Your task to perform on an android device: Go to Amazon Image 0: 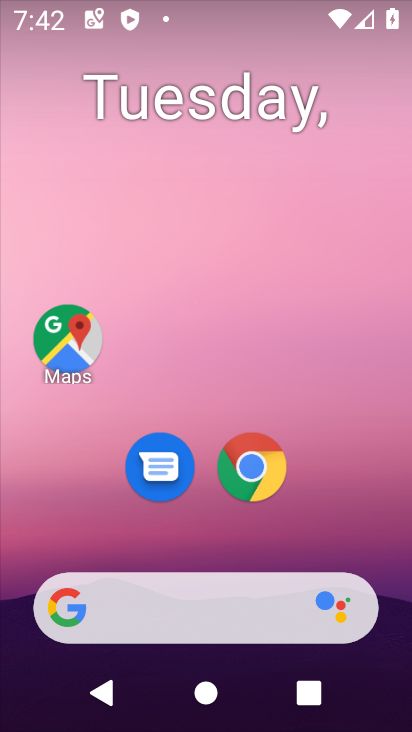
Step 0: click (274, 464)
Your task to perform on an android device: Go to Amazon Image 1: 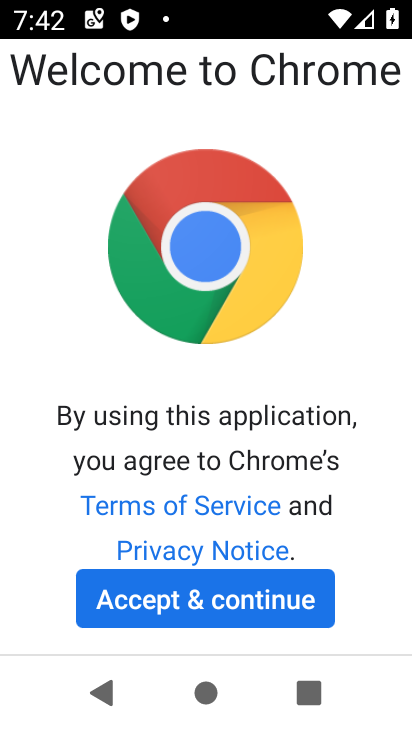
Step 1: click (277, 597)
Your task to perform on an android device: Go to Amazon Image 2: 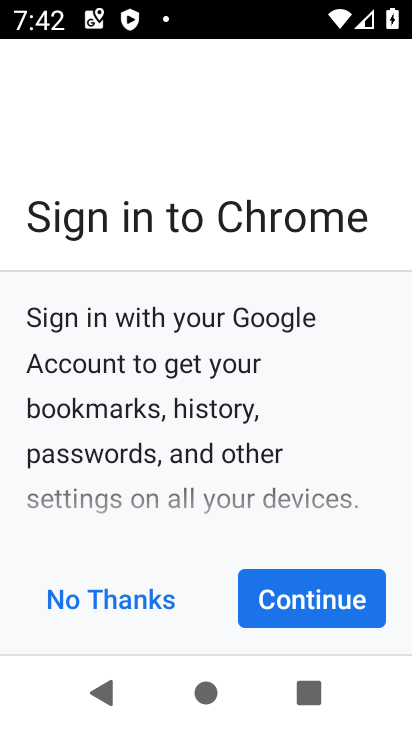
Step 2: click (299, 600)
Your task to perform on an android device: Go to Amazon Image 3: 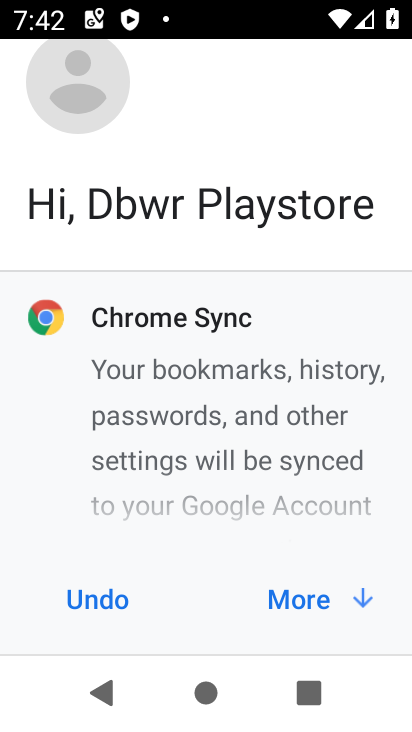
Step 3: click (299, 600)
Your task to perform on an android device: Go to Amazon Image 4: 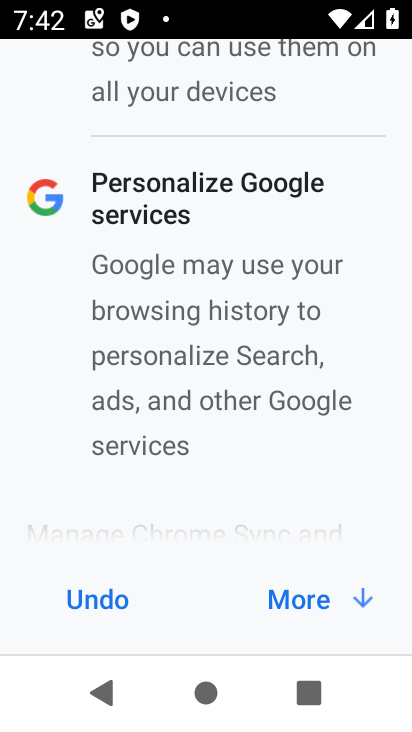
Step 4: click (299, 600)
Your task to perform on an android device: Go to Amazon Image 5: 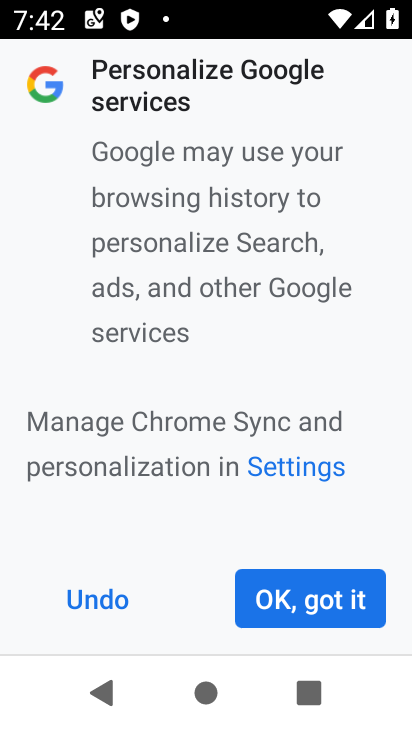
Step 5: click (299, 600)
Your task to perform on an android device: Go to Amazon Image 6: 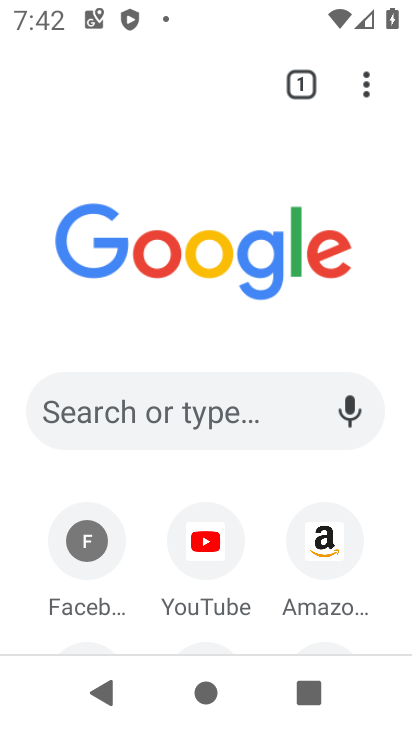
Step 6: click (335, 539)
Your task to perform on an android device: Go to Amazon Image 7: 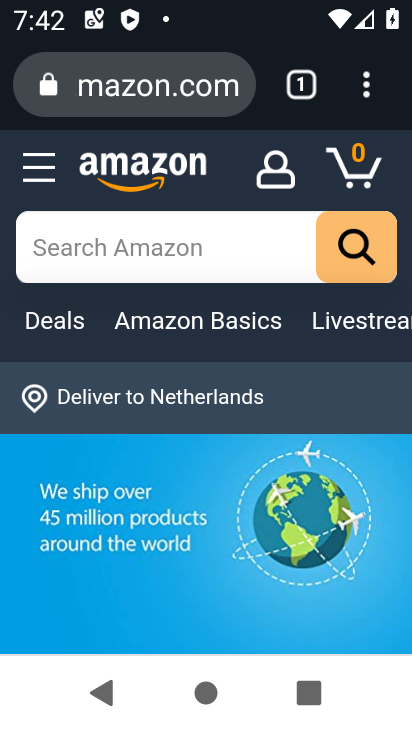
Step 7: task complete